Your task to perform on an android device: Go to Google Image 0: 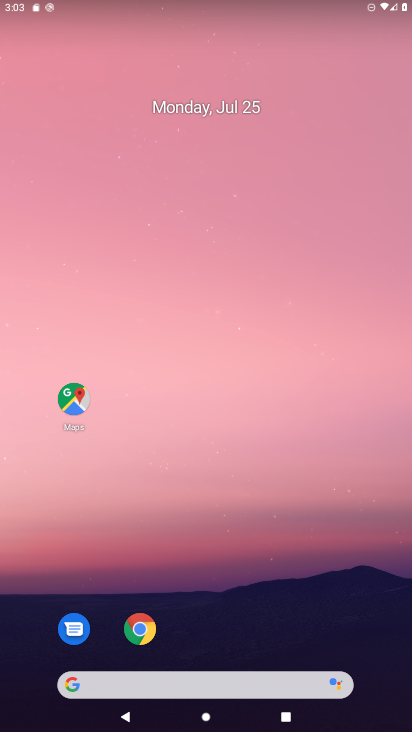
Step 0: drag from (244, 616) to (181, 47)
Your task to perform on an android device: Go to Google Image 1: 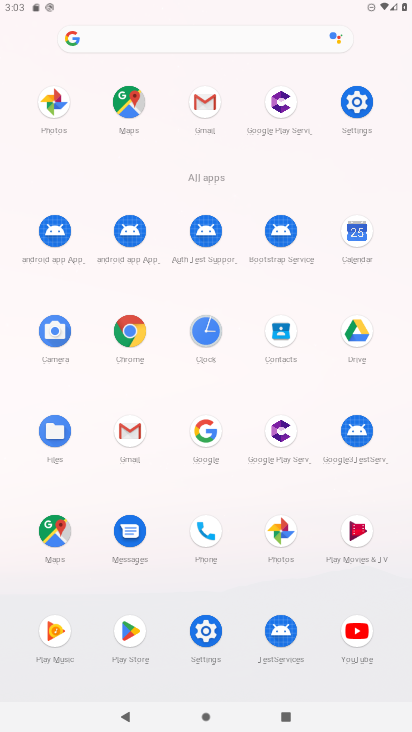
Step 1: click (203, 435)
Your task to perform on an android device: Go to Google Image 2: 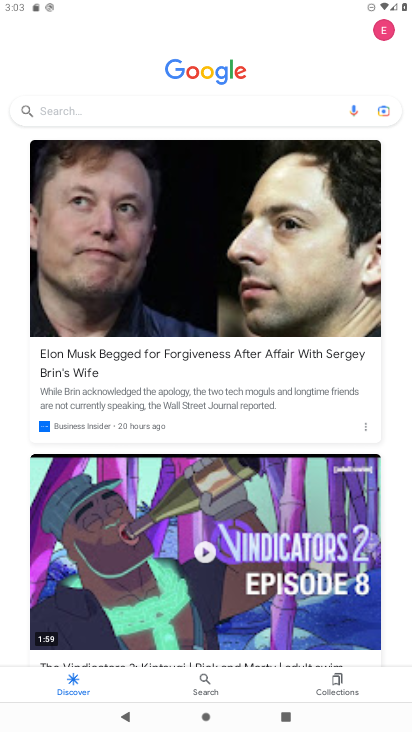
Step 2: task complete